Your task to perform on an android device: turn off sleep mode Image 0: 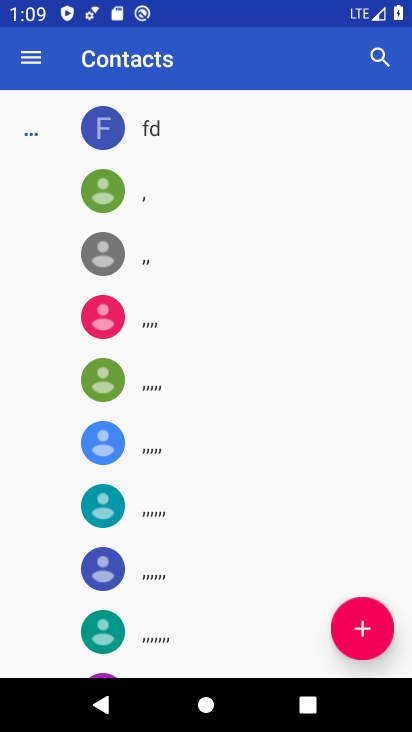
Step 0: press home button
Your task to perform on an android device: turn off sleep mode Image 1: 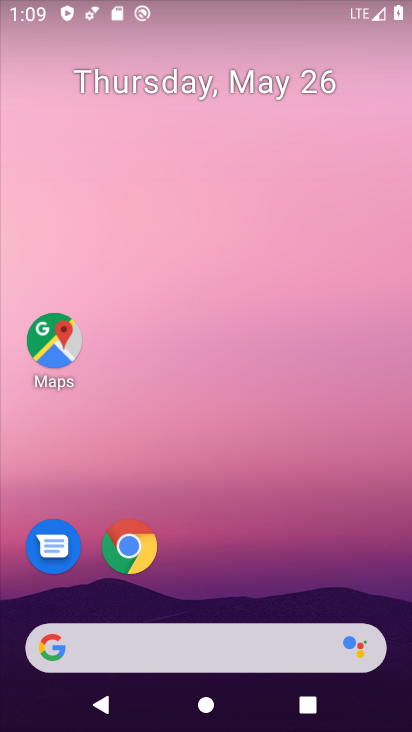
Step 1: click (236, 22)
Your task to perform on an android device: turn off sleep mode Image 2: 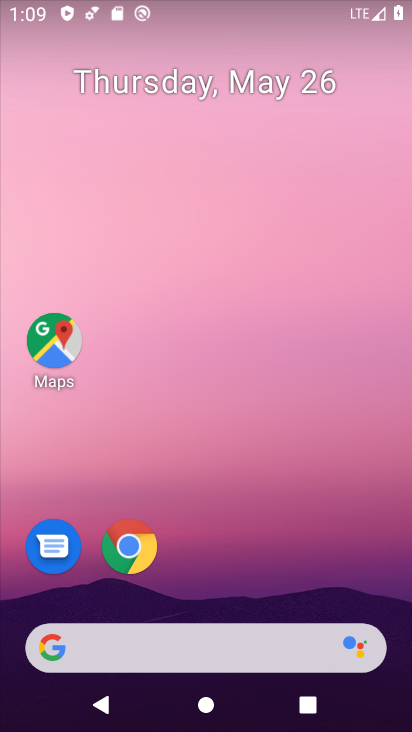
Step 2: drag from (247, 571) to (192, 6)
Your task to perform on an android device: turn off sleep mode Image 3: 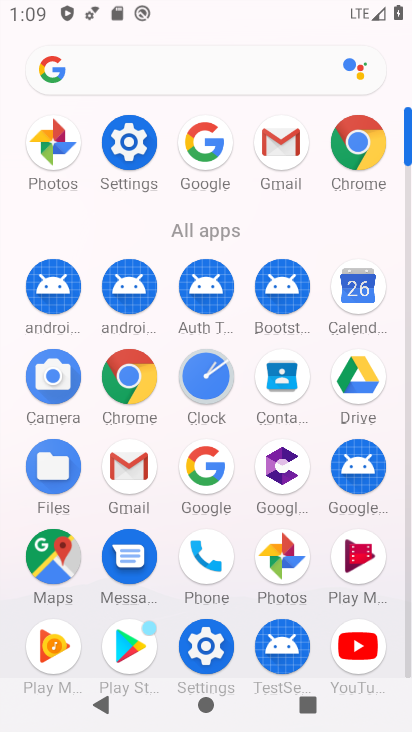
Step 3: click (118, 128)
Your task to perform on an android device: turn off sleep mode Image 4: 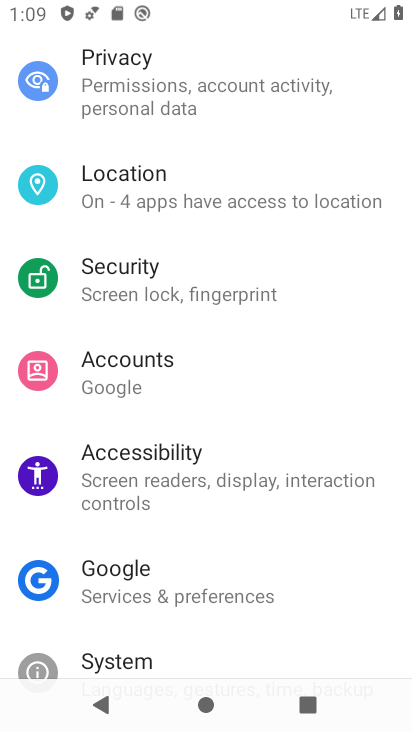
Step 4: drag from (237, 131) to (244, 702)
Your task to perform on an android device: turn off sleep mode Image 5: 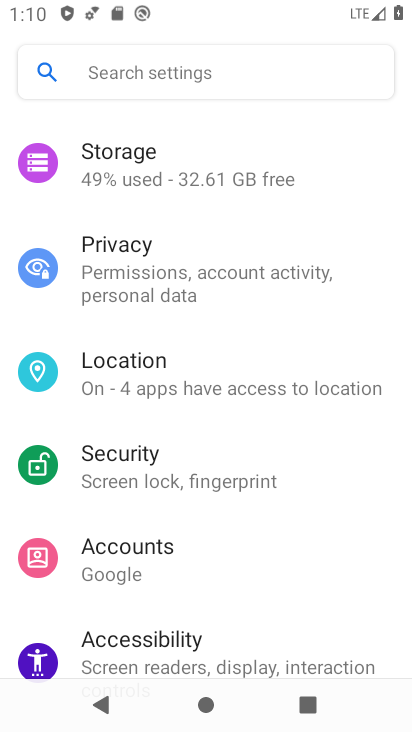
Step 5: drag from (204, 241) to (204, 704)
Your task to perform on an android device: turn off sleep mode Image 6: 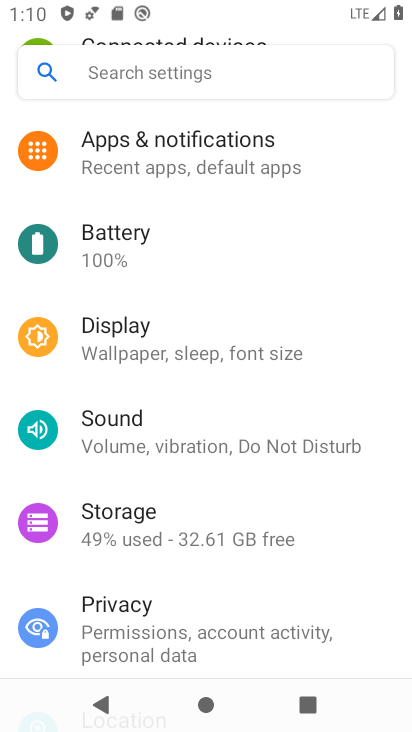
Step 6: click (183, 336)
Your task to perform on an android device: turn off sleep mode Image 7: 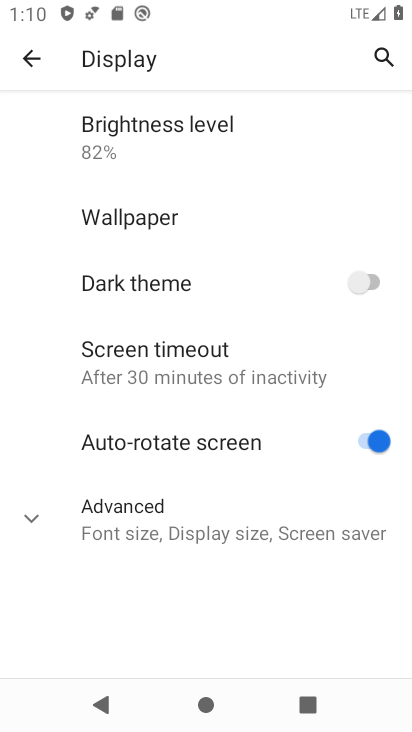
Step 7: task complete